Your task to perform on an android device: Go to Maps Image 0: 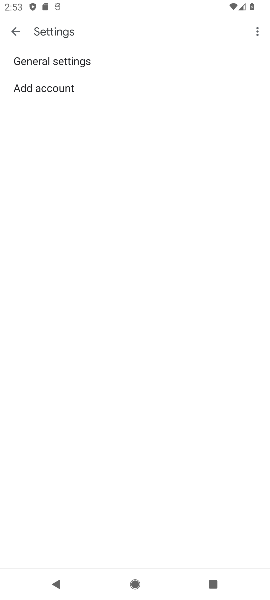
Step 0: press home button
Your task to perform on an android device: Go to Maps Image 1: 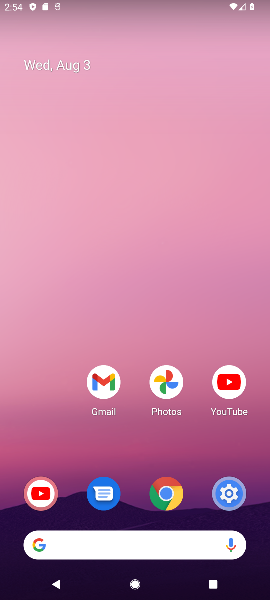
Step 1: drag from (121, 357) to (147, 4)
Your task to perform on an android device: Go to Maps Image 2: 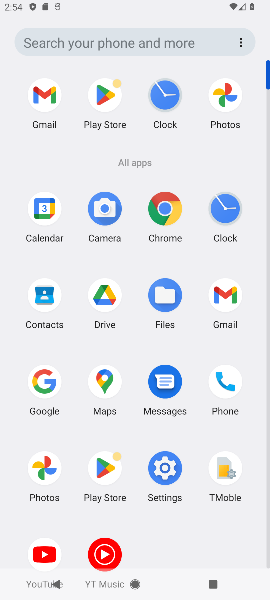
Step 2: click (102, 401)
Your task to perform on an android device: Go to Maps Image 3: 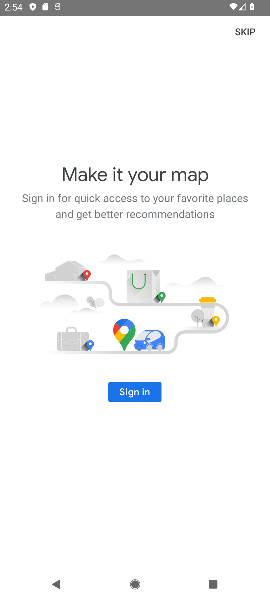
Step 3: click (137, 393)
Your task to perform on an android device: Go to Maps Image 4: 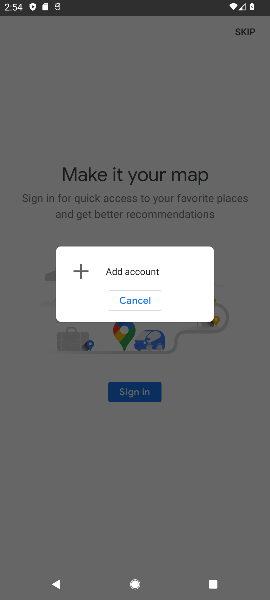
Step 4: task complete